Your task to perform on an android device: Turn on the flashlight Image 0: 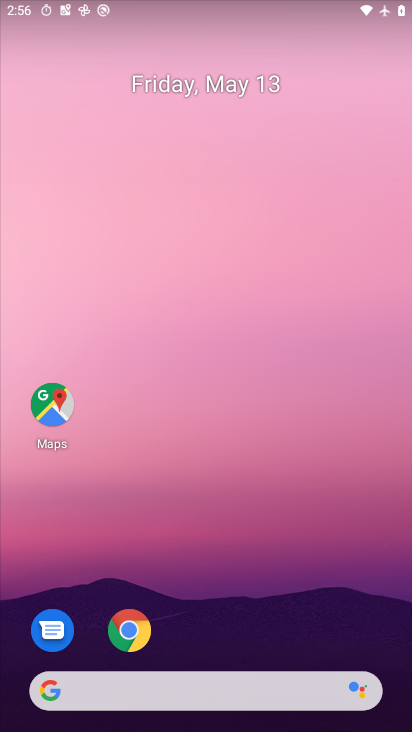
Step 0: drag from (180, 603) to (250, 196)
Your task to perform on an android device: Turn on the flashlight Image 1: 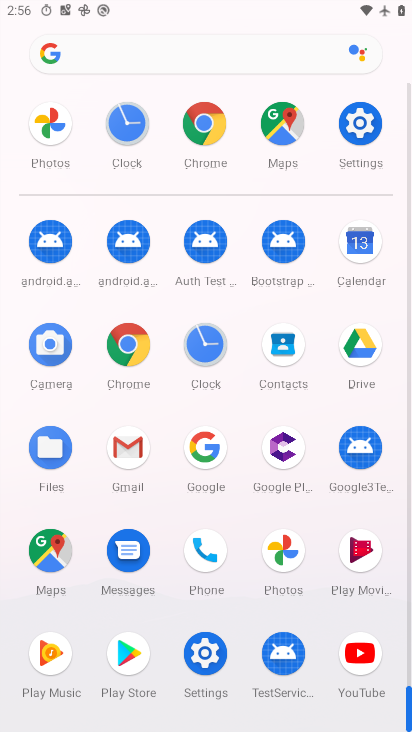
Step 1: click (361, 145)
Your task to perform on an android device: Turn on the flashlight Image 2: 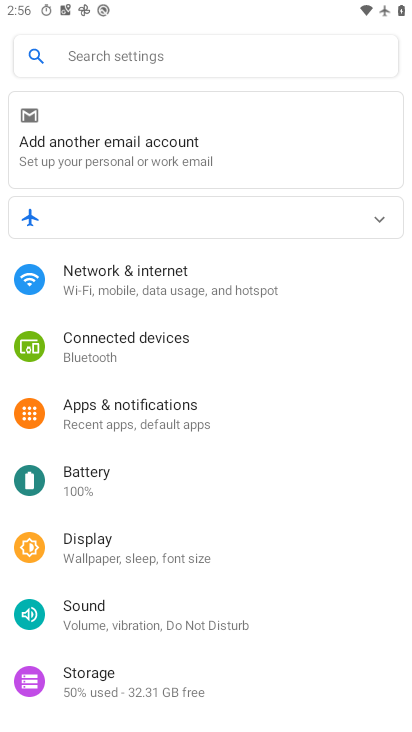
Step 2: task complete